Your task to perform on an android device: make emails show in primary in the gmail app Image 0: 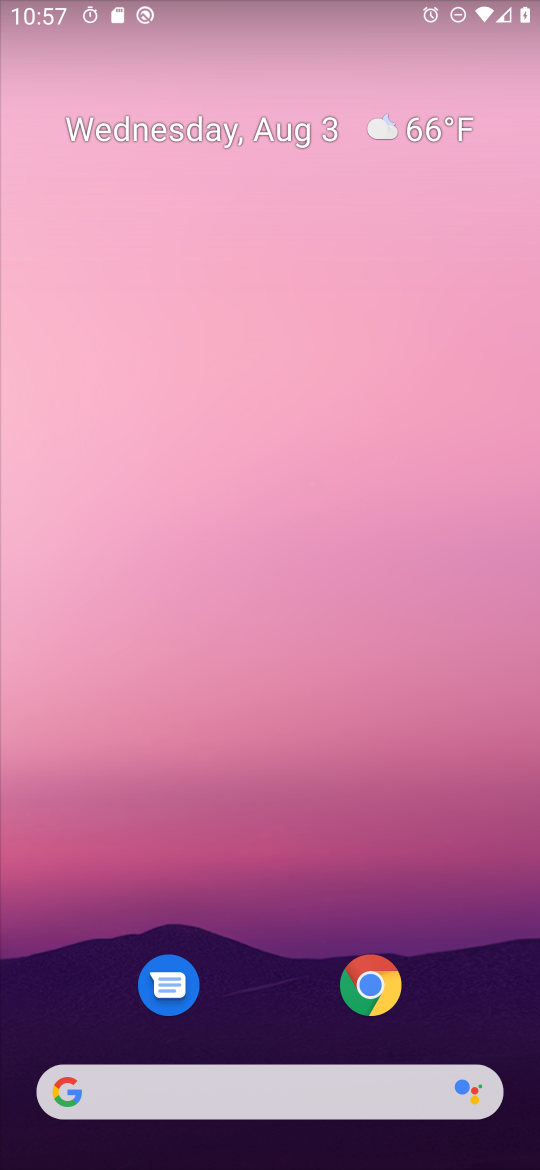
Step 0: drag from (270, 983) to (298, 390)
Your task to perform on an android device: make emails show in primary in the gmail app Image 1: 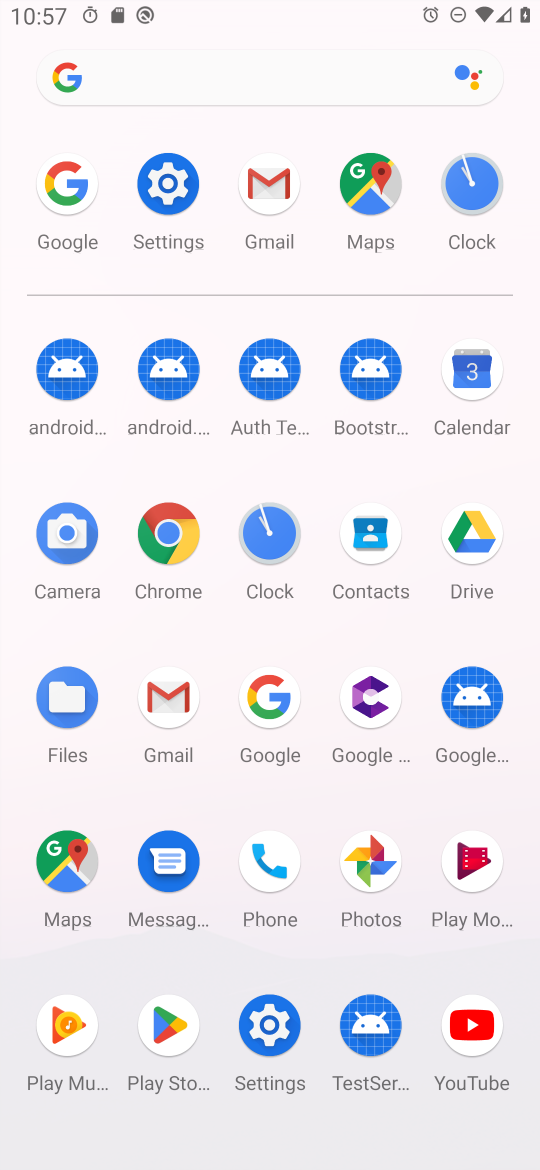
Step 1: click (259, 206)
Your task to perform on an android device: make emails show in primary in the gmail app Image 2: 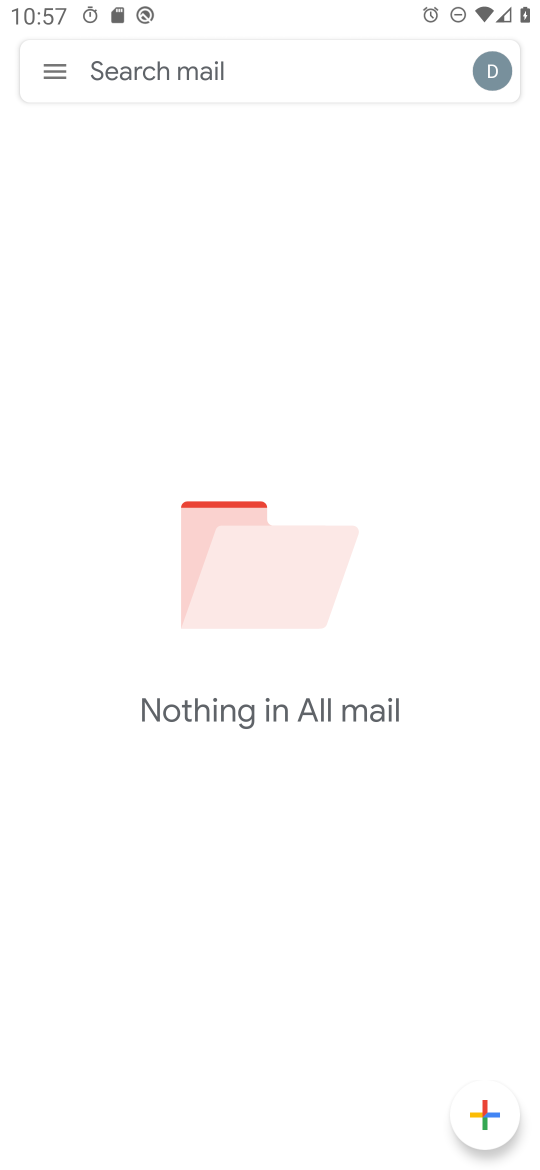
Step 2: click (42, 70)
Your task to perform on an android device: make emails show in primary in the gmail app Image 3: 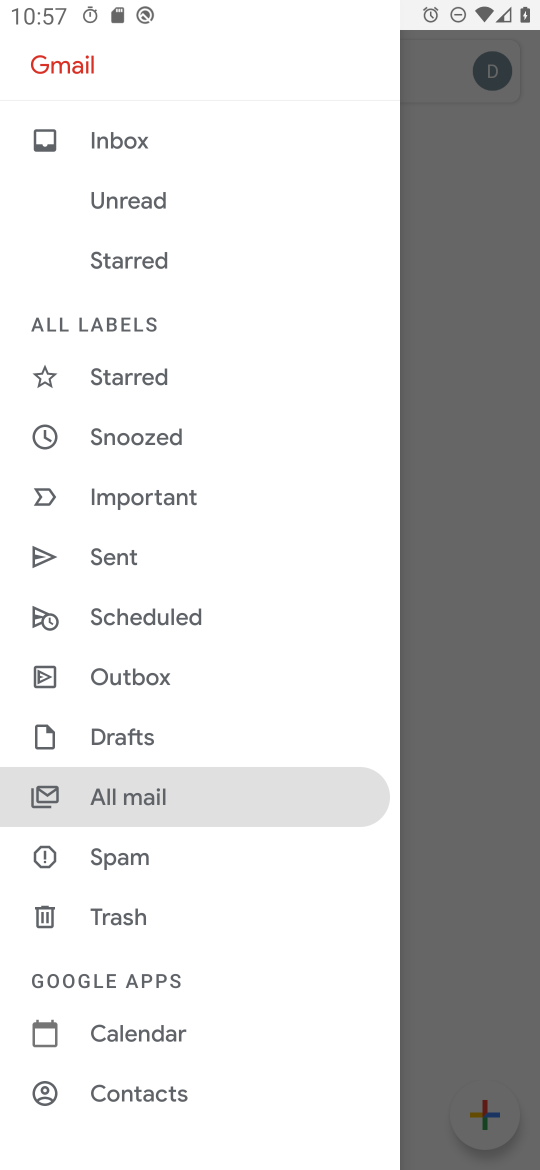
Step 3: drag from (170, 930) to (166, 349)
Your task to perform on an android device: make emails show in primary in the gmail app Image 4: 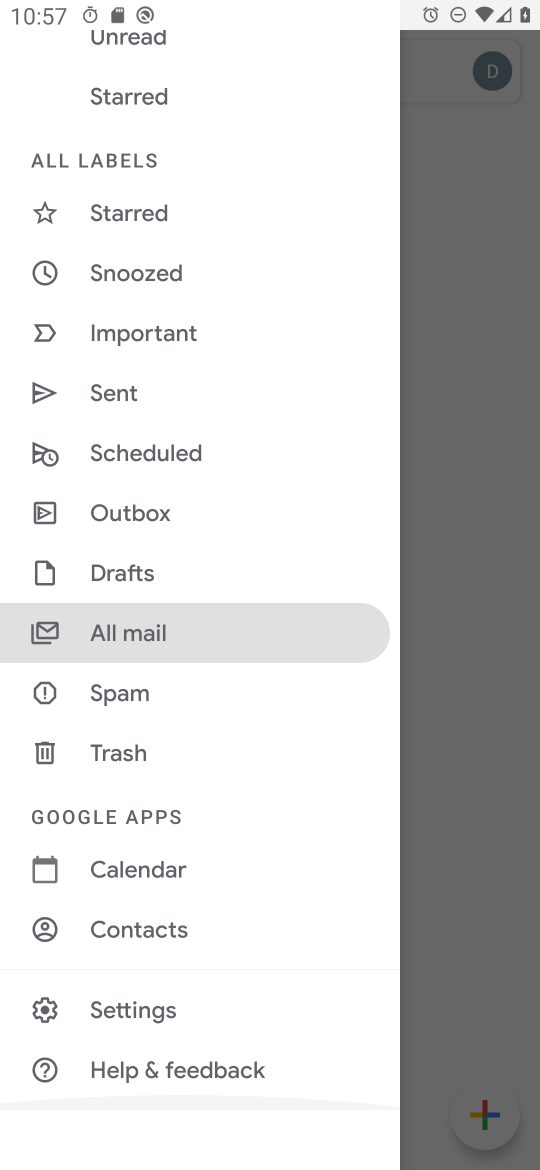
Step 4: click (136, 1000)
Your task to perform on an android device: make emails show in primary in the gmail app Image 5: 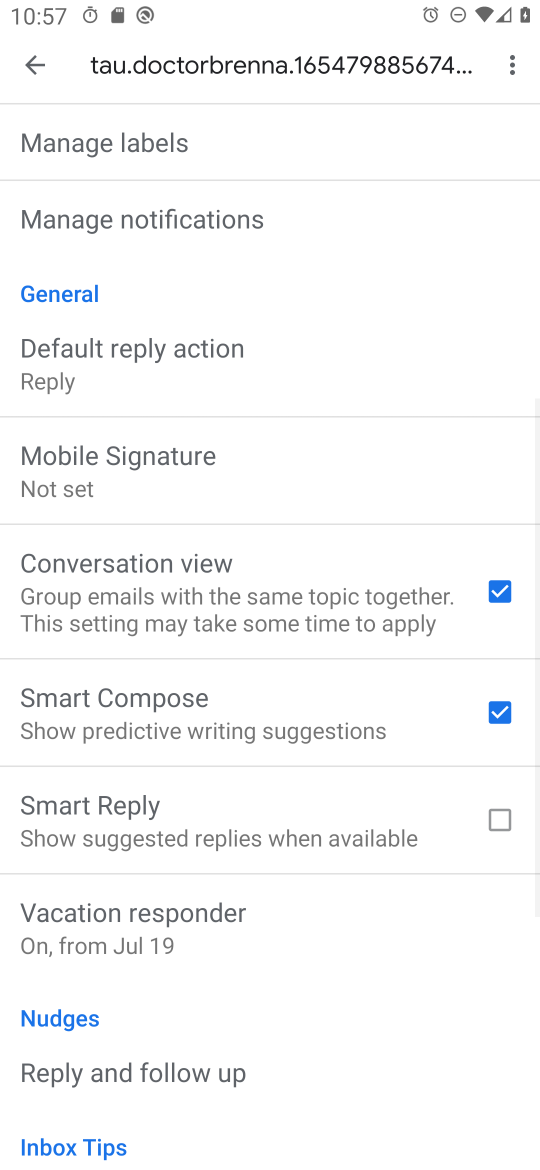
Step 5: drag from (195, 335) to (199, 875)
Your task to perform on an android device: make emails show in primary in the gmail app Image 6: 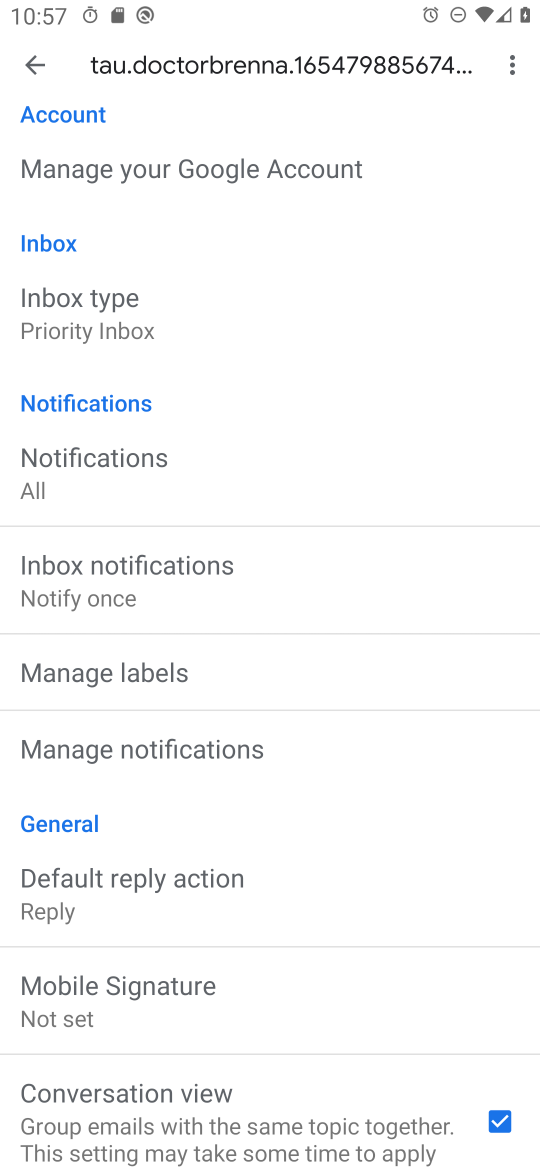
Step 6: click (226, 301)
Your task to perform on an android device: make emails show in primary in the gmail app Image 7: 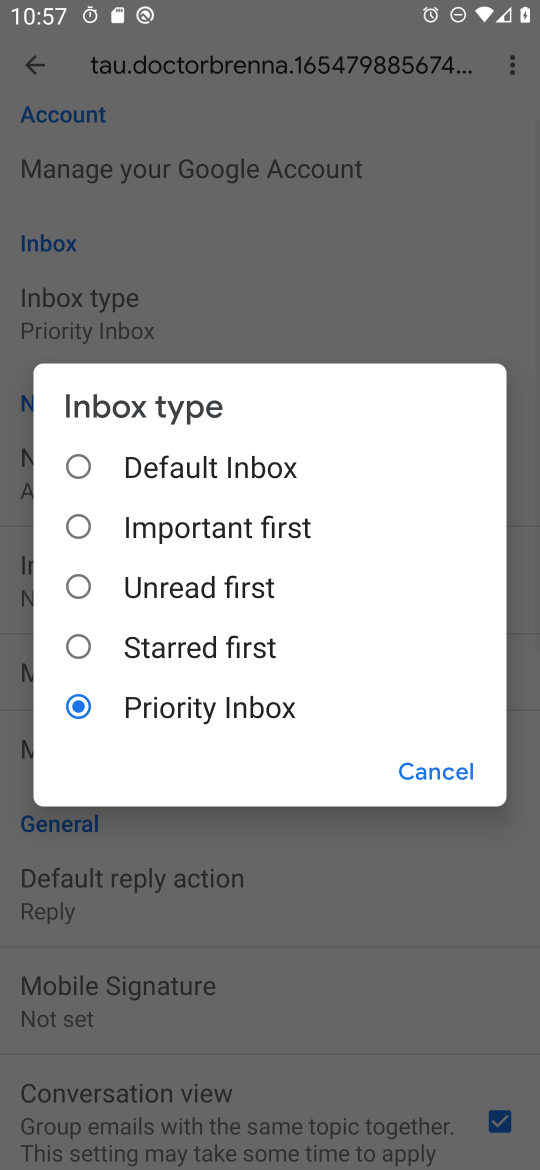
Step 7: click (142, 470)
Your task to perform on an android device: make emails show in primary in the gmail app Image 8: 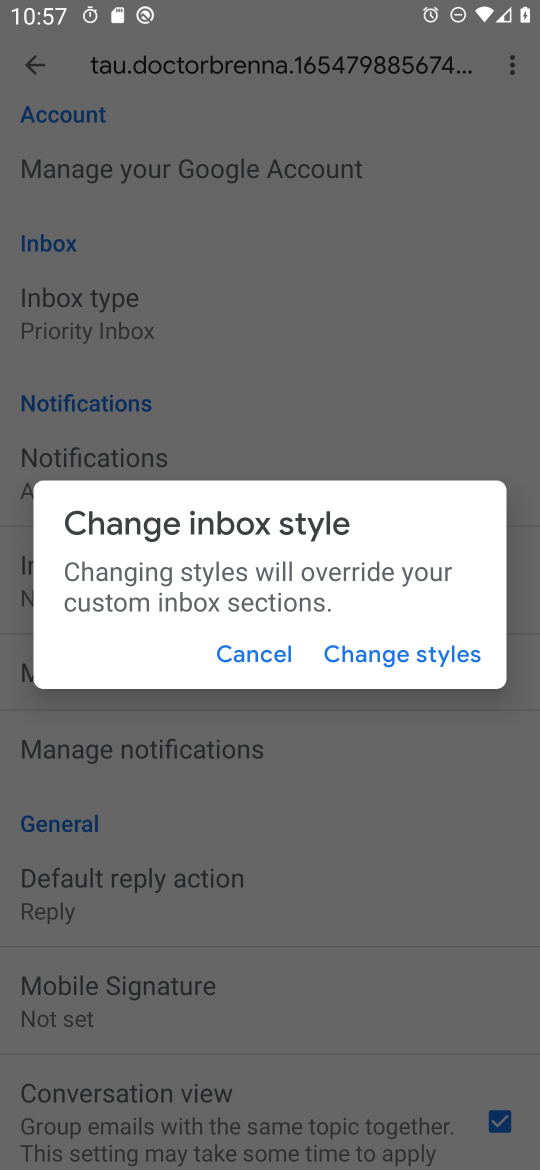
Step 8: click (463, 652)
Your task to perform on an android device: make emails show in primary in the gmail app Image 9: 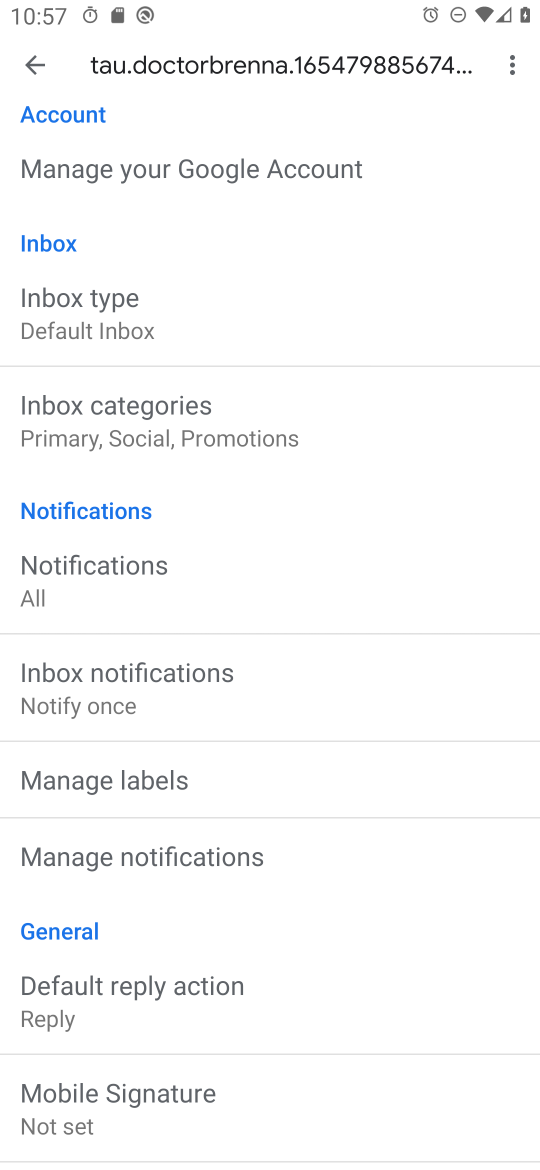
Step 9: task complete